Your task to perform on an android device: Set the phone to "Do not disturb". Image 0: 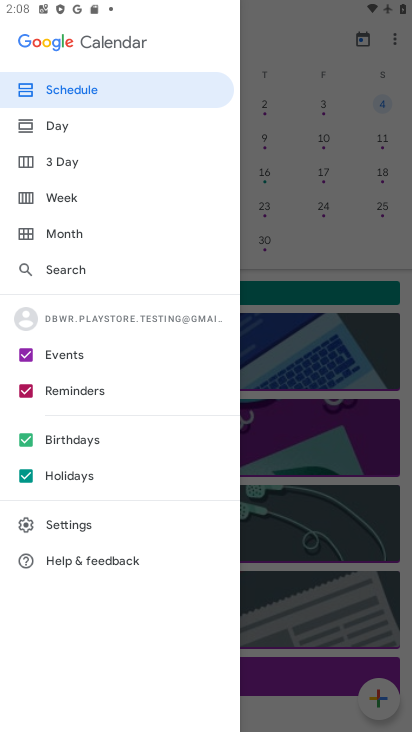
Step 0: press home button
Your task to perform on an android device: Set the phone to "Do not disturb". Image 1: 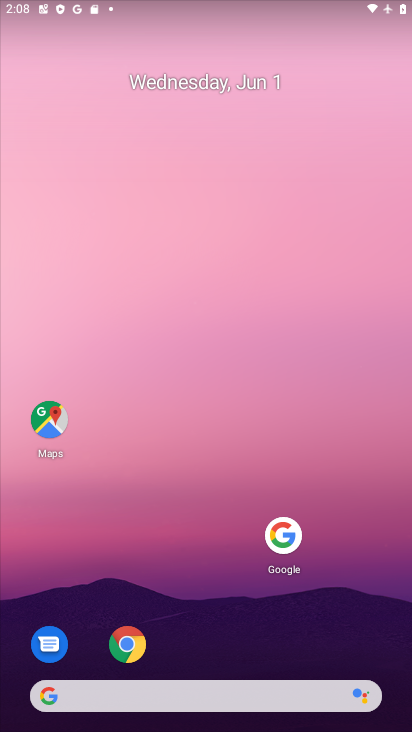
Step 1: drag from (147, 689) to (283, 170)
Your task to perform on an android device: Set the phone to "Do not disturb". Image 2: 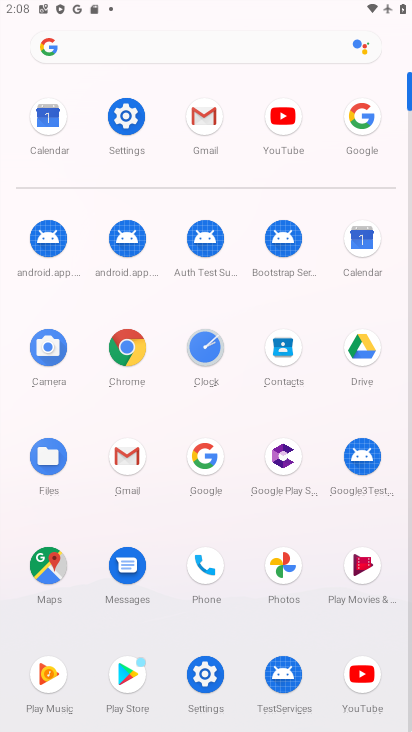
Step 2: click (124, 126)
Your task to perform on an android device: Set the phone to "Do not disturb". Image 3: 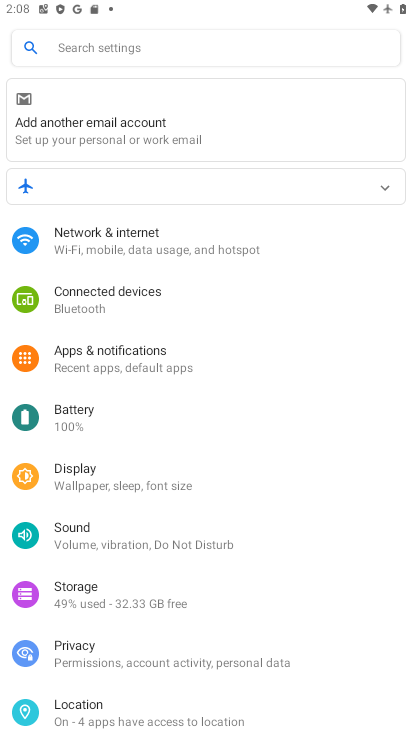
Step 3: click (148, 543)
Your task to perform on an android device: Set the phone to "Do not disturb". Image 4: 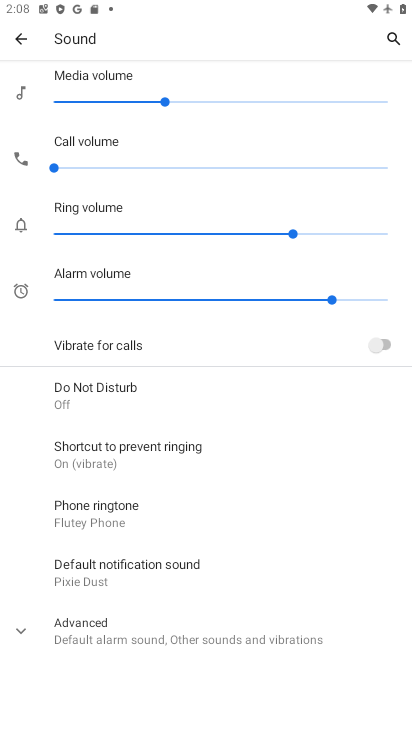
Step 4: click (71, 527)
Your task to perform on an android device: Set the phone to "Do not disturb". Image 5: 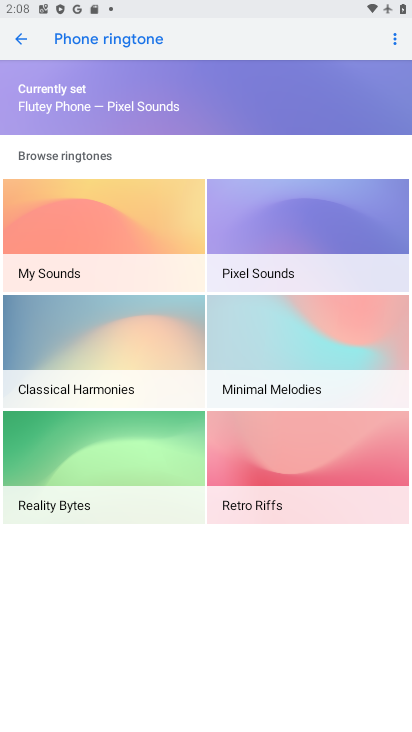
Step 5: click (27, 38)
Your task to perform on an android device: Set the phone to "Do not disturb". Image 6: 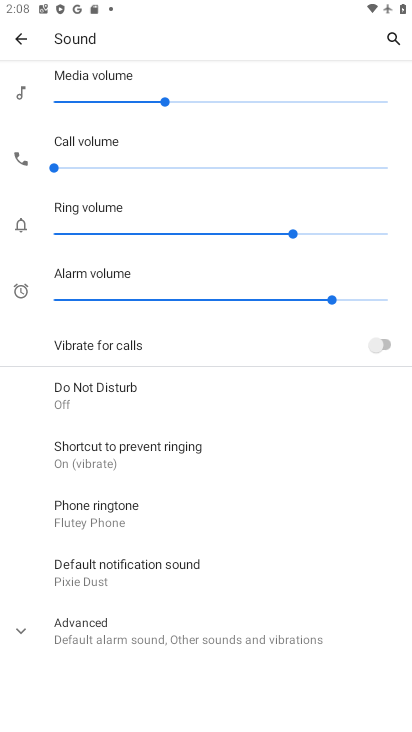
Step 6: click (114, 391)
Your task to perform on an android device: Set the phone to "Do not disturb". Image 7: 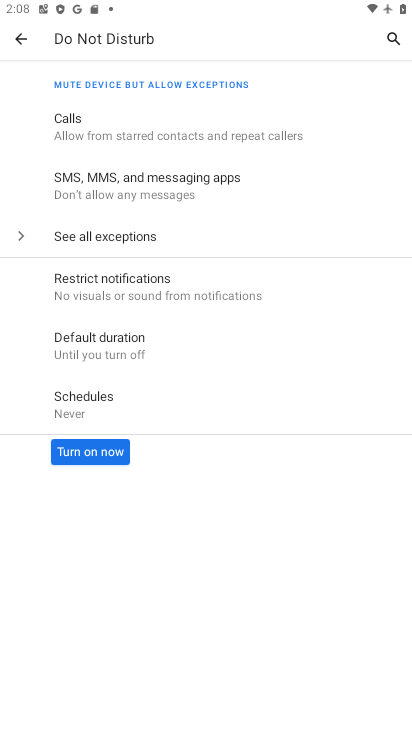
Step 7: click (98, 453)
Your task to perform on an android device: Set the phone to "Do not disturb". Image 8: 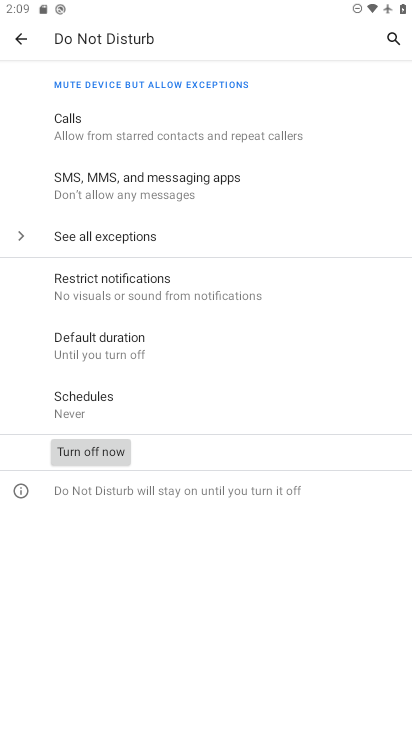
Step 8: task complete